Your task to perform on an android device: Go to eBay Image 0: 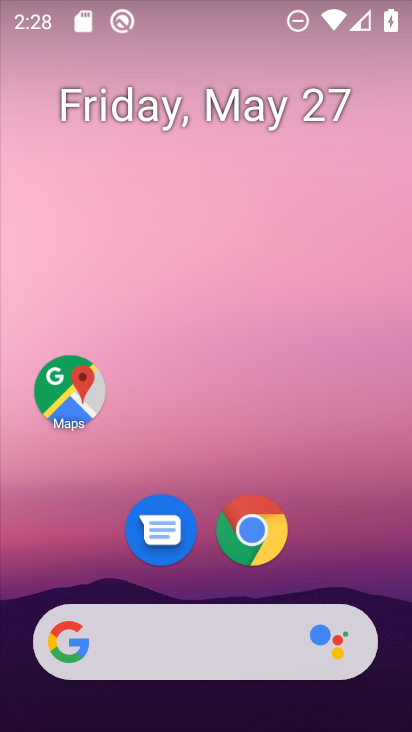
Step 0: click (243, 546)
Your task to perform on an android device: Go to eBay Image 1: 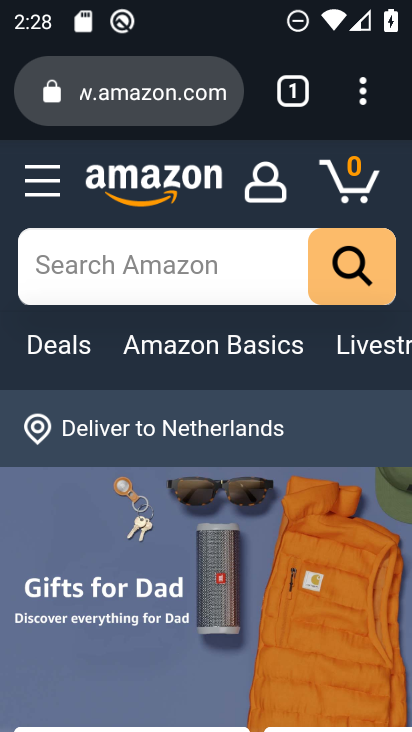
Step 1: click (288, 90)
Your task to perform on an android device: Go to eBay Image 2: 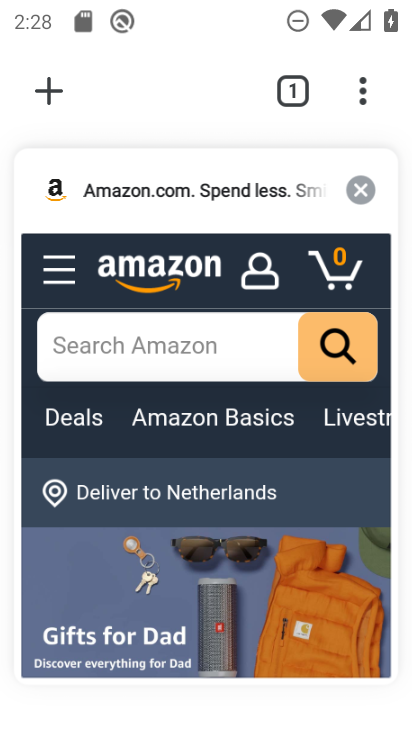
Step 2: click (355, 192)
Your task to perform on an android device: Go to eBay Image 3: 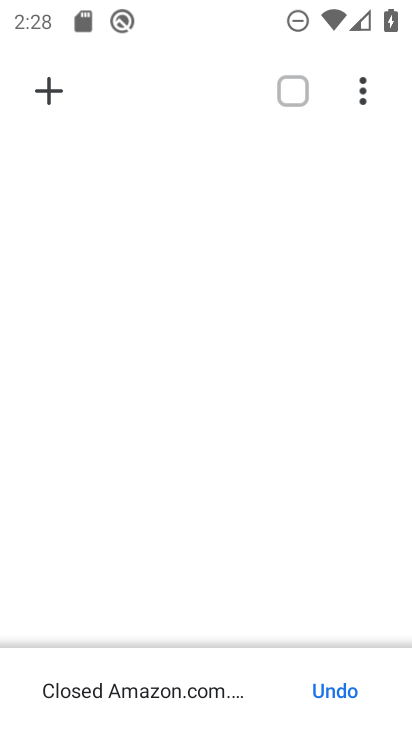
Step 3: click (50, 96)
Your task to perform on an android device: Go to eBay Image 4: 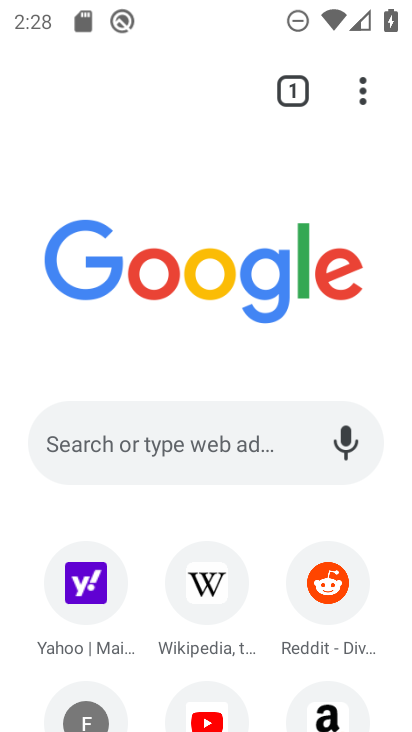
Step 4: click (198, 436)
Your task to perform on an android device: Go to eBay Image 5: 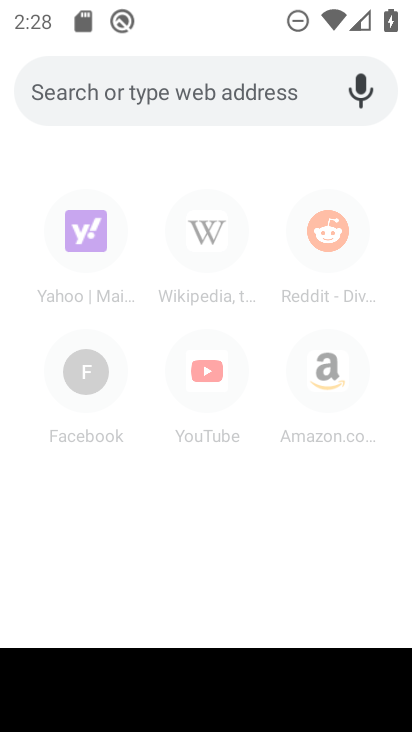
Step 5: type "ebay.com"
Your task to perform on an android device: Go to eBay Image 6: 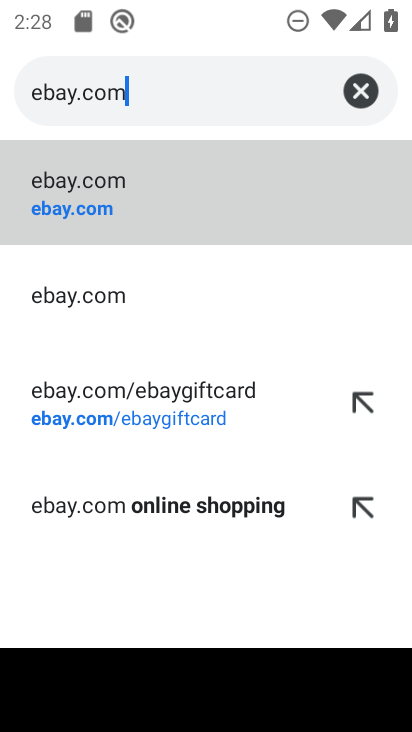
Step 6: click (184, 164)
Your task to perform on an android device: Go to eBay Image 7: 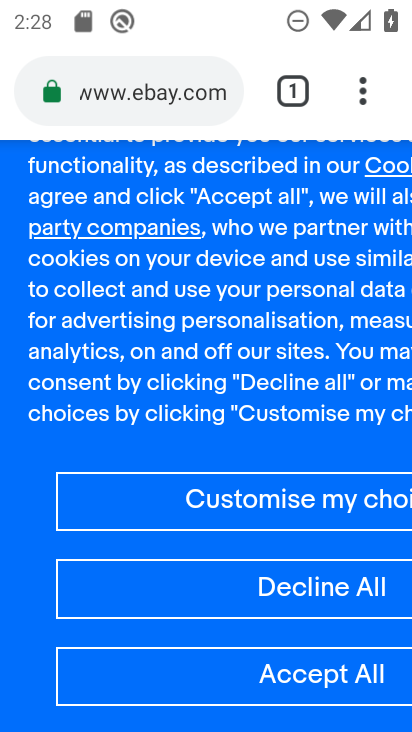
Step 7: task complete